Your task to perform on an android device: Install the News app Image 0: 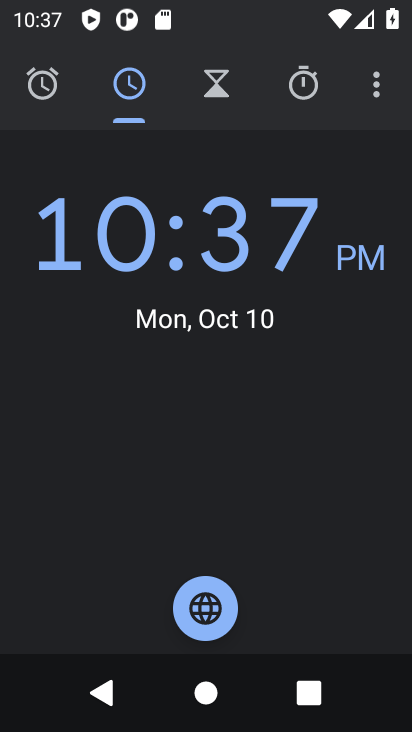
Step 0: press home button
Your task to perform on an android device: Install the News app Image 1: 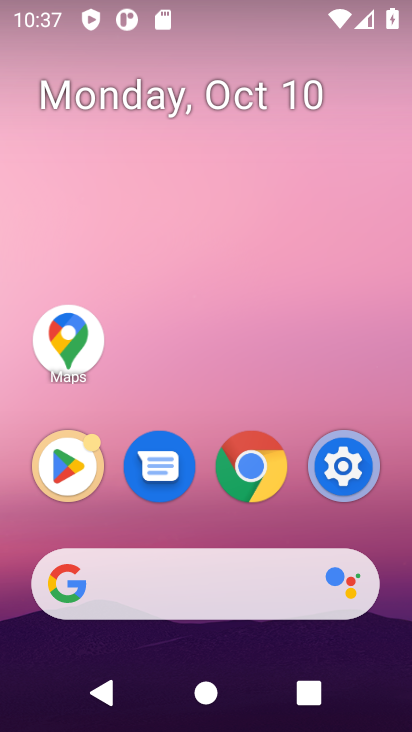
Step 1: drag from (195, 498) to (183, 19)
Your task to perform on an android device: Install the News app Image 2: 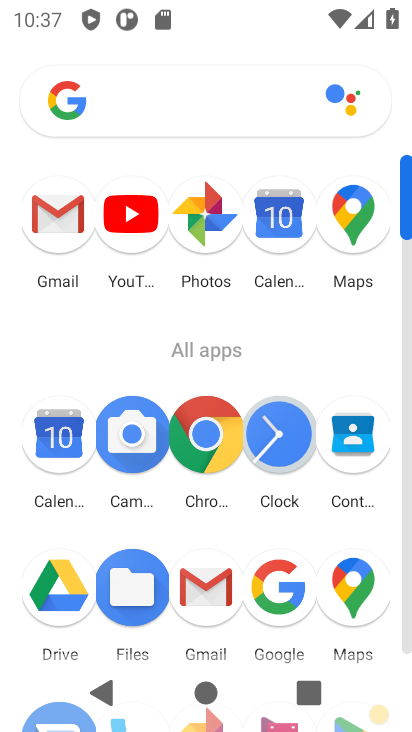
Step 2: drag from (247, 538) to (213, 155)
Your task to perform on an android device: Install the News app Image 3: 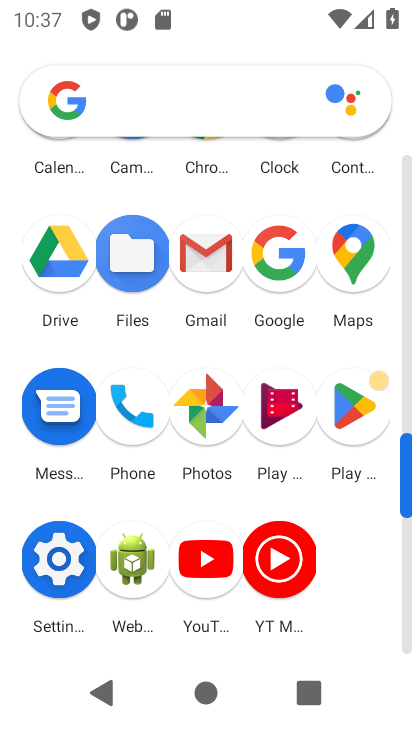
Step 3: click (357, 410)
Your task to perform on an android device: Install the News app Image 4: 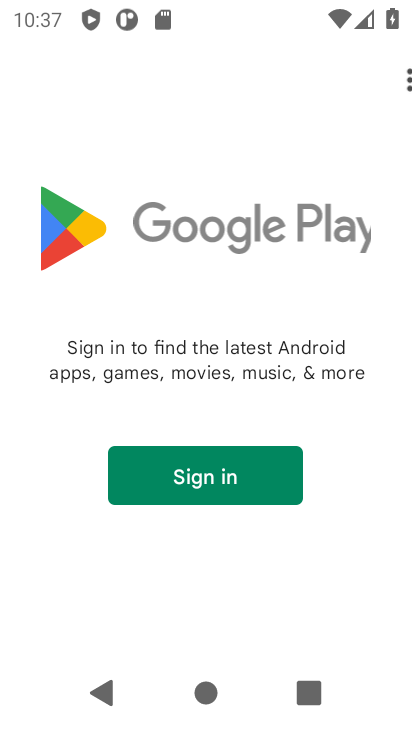
Step 4: click (201, 483)
Your task to perform on an android device: Install the News app Image 5: 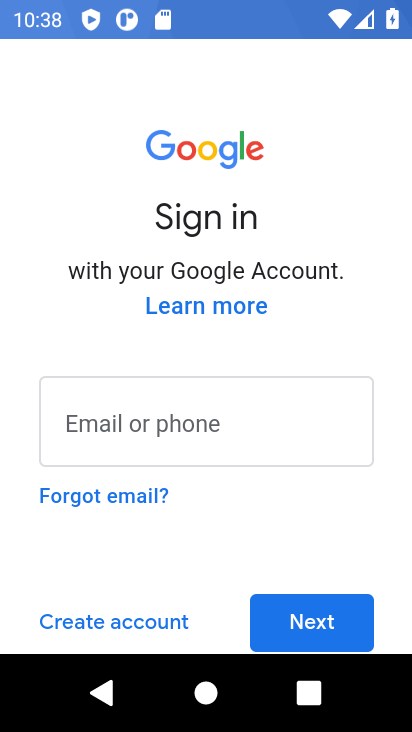
Step 5: task complete